Your task to perform on an android device: Toggle the flashlight Image 0: 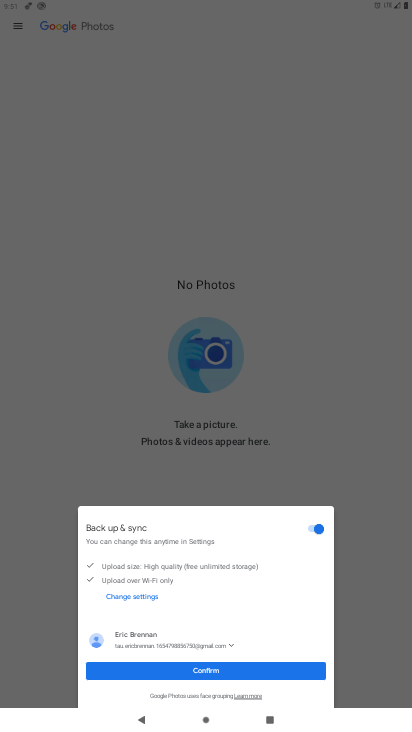
Step 0: press home button
Your task to perform on an android device: Toggle the flashlight Image 1: 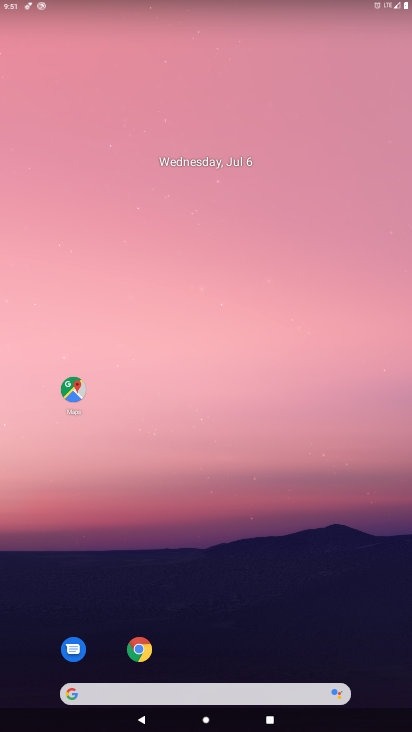
Step 1: drag from (224, 642) to (259, 86)
Your task to perform on an android device: Toggle the flashlight Image 2: 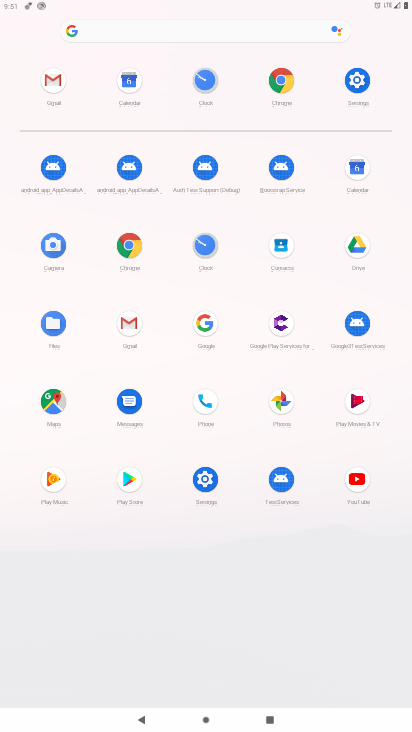
Step 2: drag from (226, 3) to (236, 610)
Your task to perform on an android device: Toggle the flashlight Image 3: 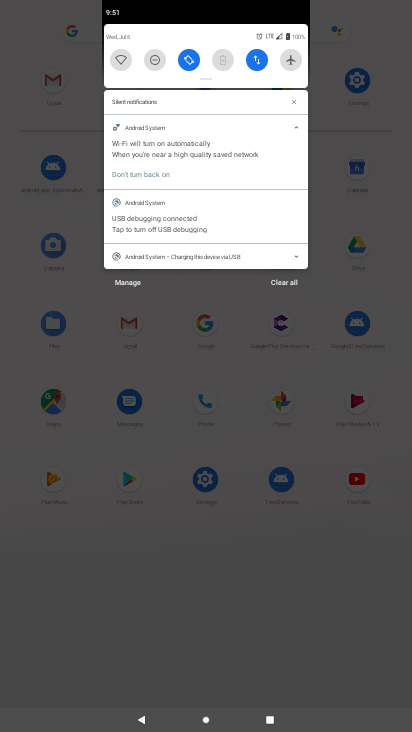
Step 3: drag from (236, 614) to (254, 186)
Your task to perform on an android device: Toggle the flashlight Image 4: 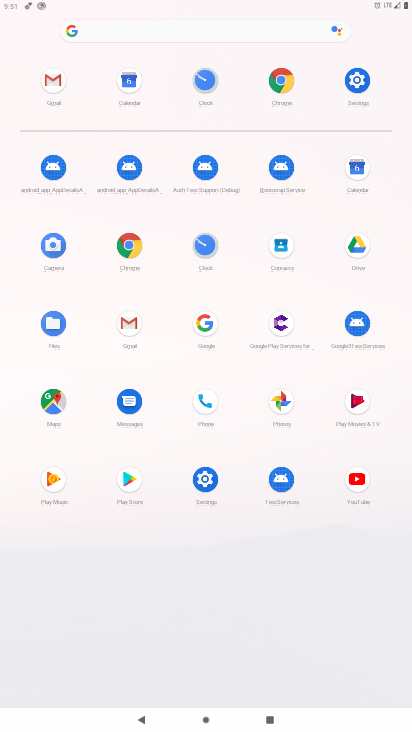
Step 4: click (361, 76)
Your task to perform on an android device: Toggle the flashlight Image 5: 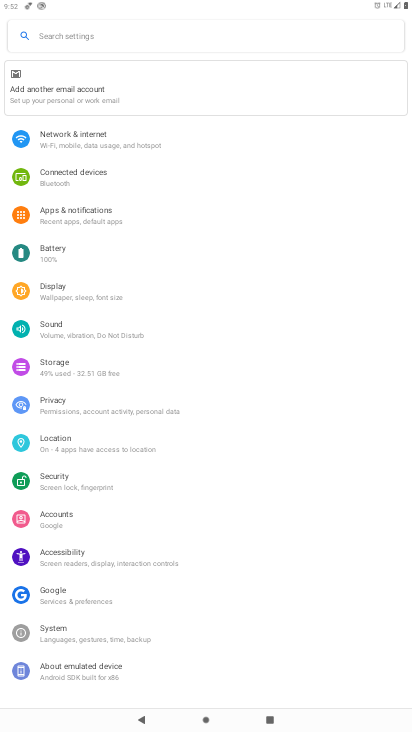
Step 5: click (80, 28)
Your task to perform on an android device: Toggle the flashlight Image 6: 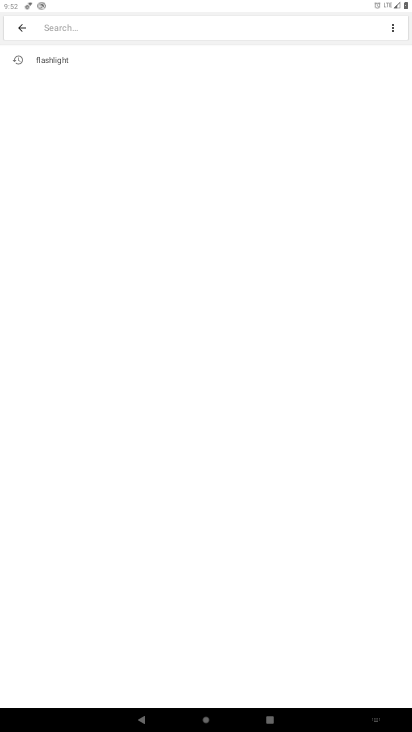
Step 6: click (81, 56)
Your task to perform on an android device: Toggle the flashlight Image 7: 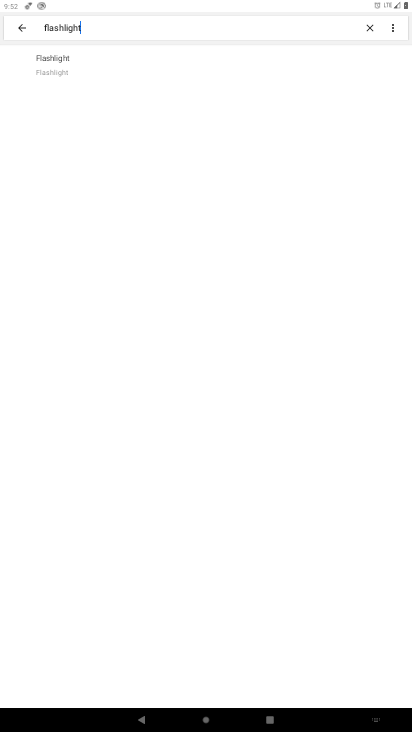
Step 7: click (76, 69)
Your task to perform on an android device: Toggle the flashlight Image 8: 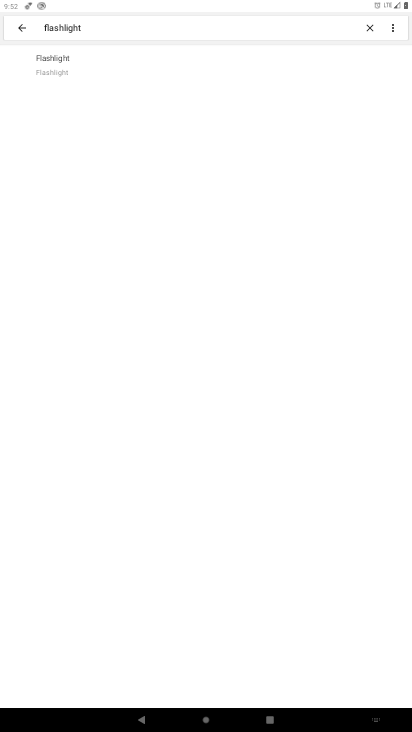
Step 8: task complete